Your task to perform on an android device: toggle pop-ups in chrome Image 0: 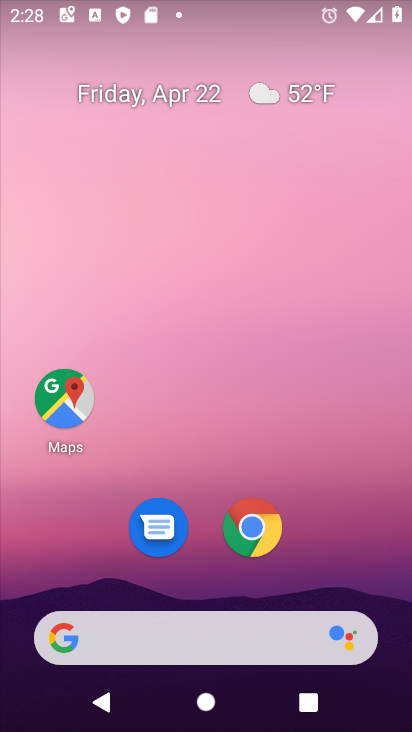
Step 0: click (259, 536)
Your task to perform on an android device: toggle pop-ups in chrome Image 1: 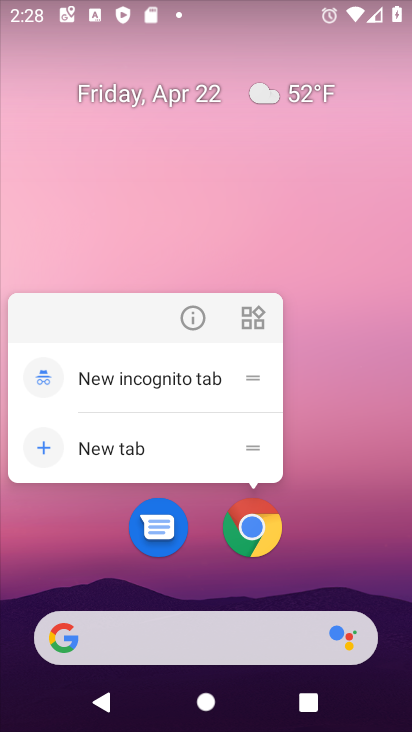
Step 1: click (262, 540)
Your task to perform on an android device: toggle pop-ups in chrome Image 2: 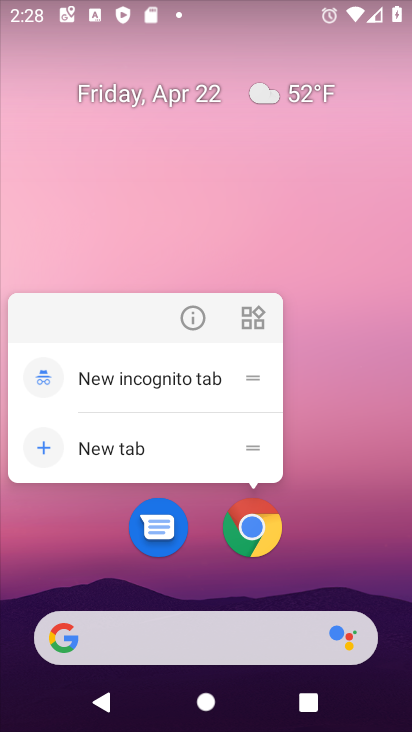
Step 2: click (262, 540)
Your task to perform on an android device: toggle pop-ups in chrome Image 3: 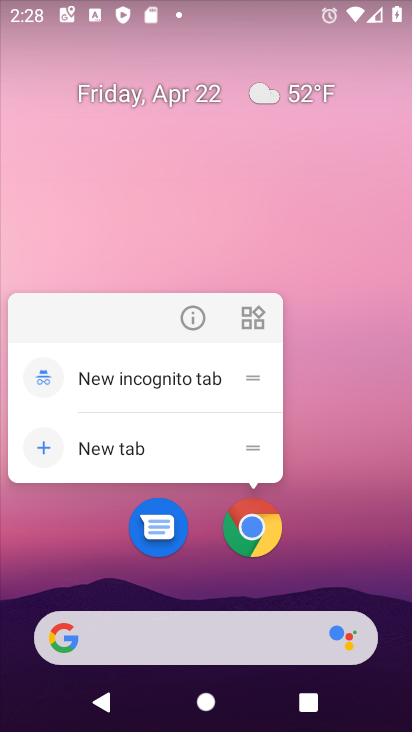
Step 3: click (262, 540)
Your task to perform on an android device: toggle pop-ups in chrome Image 4: 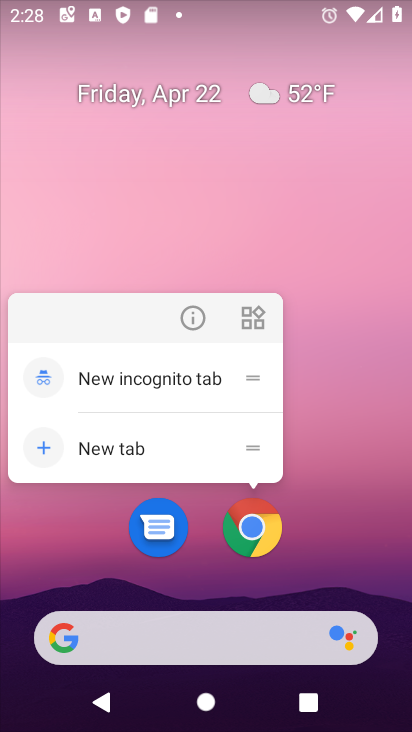
Step 4: click (266, 541)
Your task to perform on an android device: toggle pop-ups in chrome Image 5: 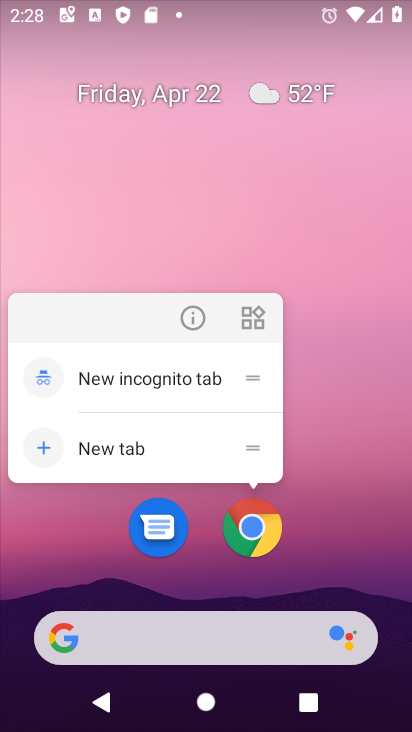
Step 5: click (249, 521)
Your task to perform on an android device: toggle pop-ups in chrome Image 6: 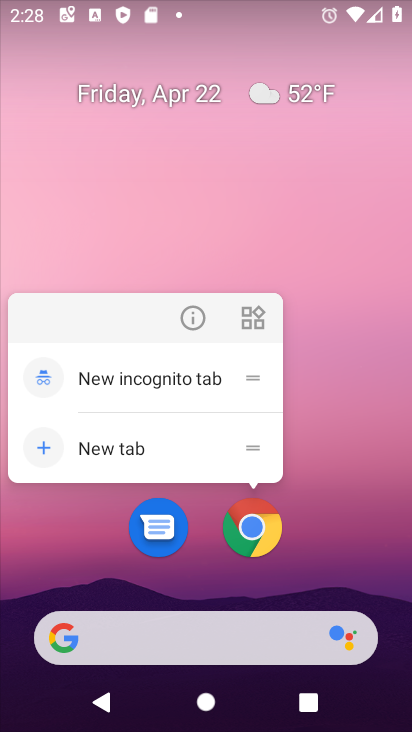
Step 6: click (256, 508)
Your task to perform on an android device: toggle pop-ups in chrome Image 7: 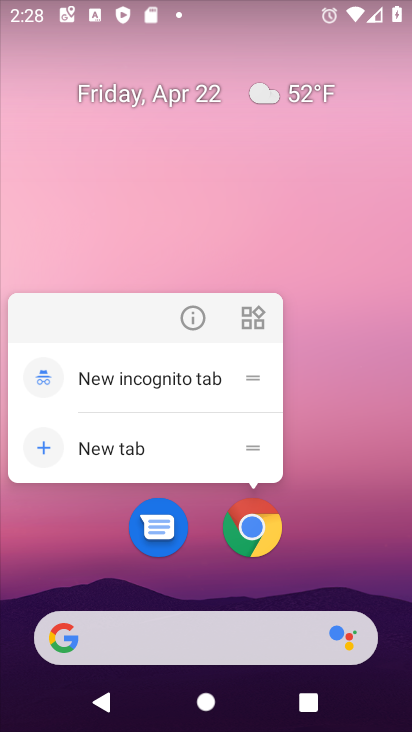
Step 7: click (256, 507)
Your task to perform on an android device: toggle pop-ups in chrome Image 8: 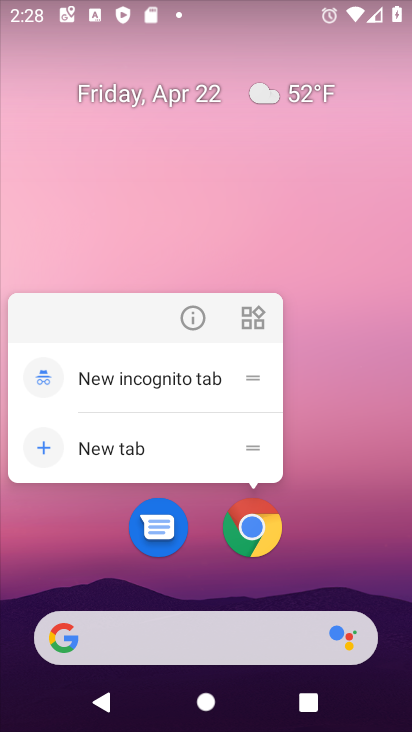
Step 8: click (256, 507)
Your task to perform on an android device: toggle pop-ups in chrome Image 9: 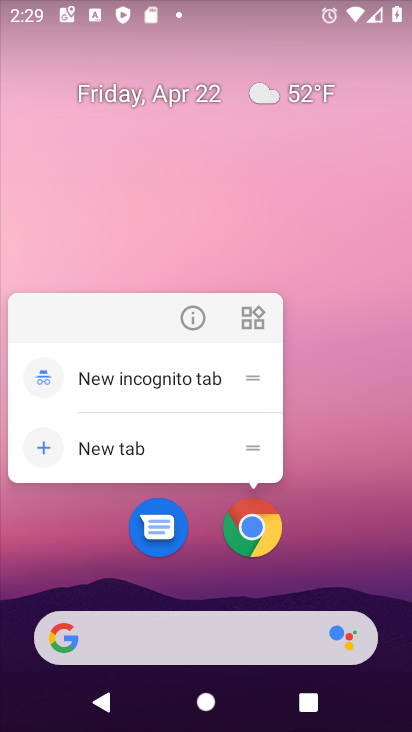
Step 9: click (256, 507)
Your task to perform on an android device: toggle pop-ups in chrome Image 10: 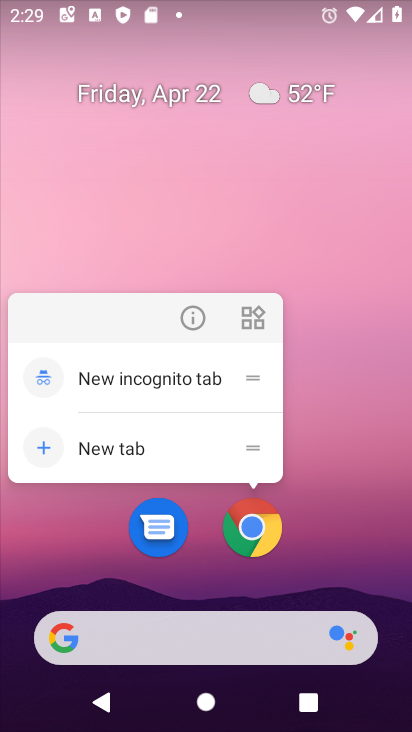
Step 10: click (256, 504)
Your task to perform on an android device: toggle pop-ups in chrome Image 11: 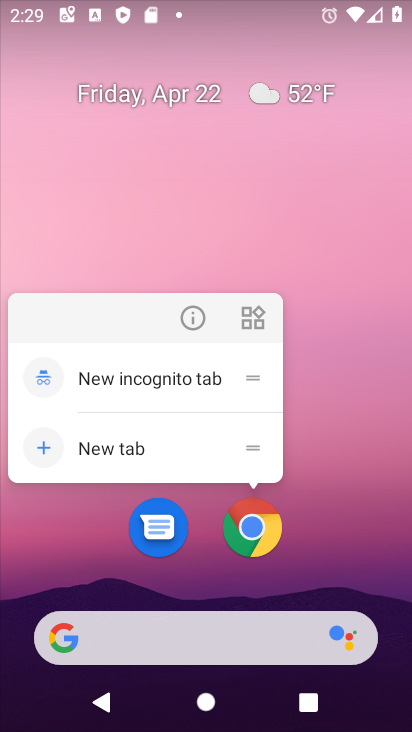
Step 11: click (256, 504)
Your task to perform on an android device: toggle pop-ups in chrome Image 12: 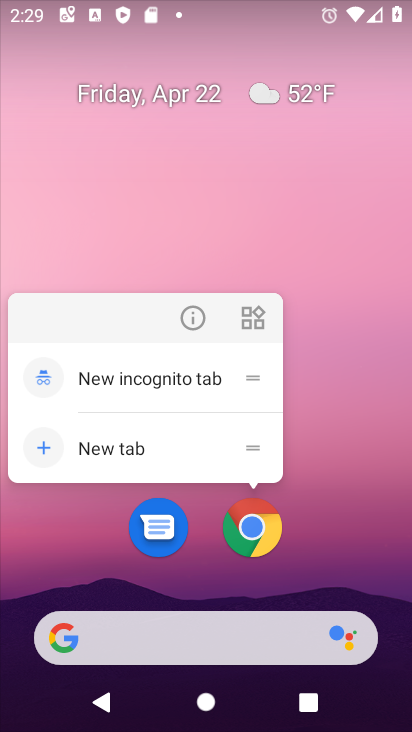
Step 12: click (256, 504)
Your task to perform on an android device: toggle pop-ups in chrome Image 13: 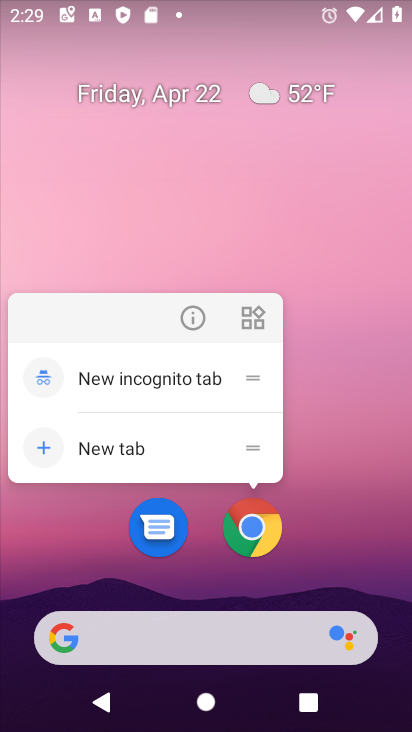
Step 13: click (256, 503)
Your task to perform on an android device: toggle pop-ups in chrome Image 14: 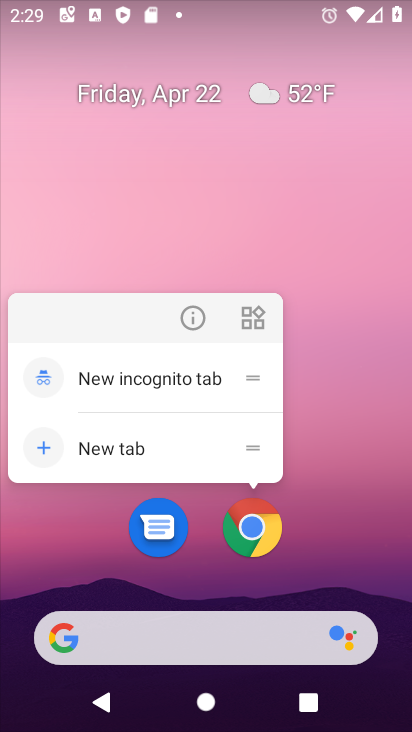
Step 14: click (256, 503)
Your task to perform on an android device: toggle pop-ups in chrome Image 15: 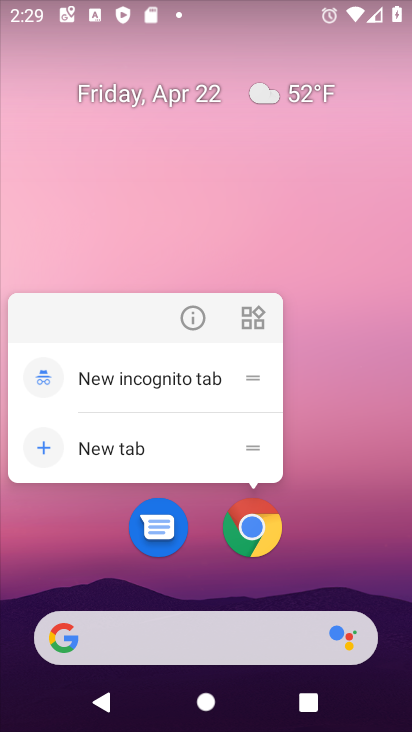
Step 15: click (256, 502)
Your task to perform on an android device: toggle pop-ups in chrome Image 16: 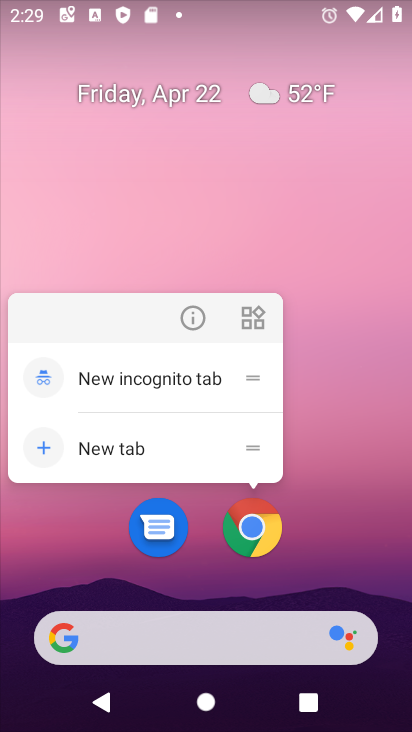
Step 16: click (256, 501)
Your task to perform on an android device: toggle pop-ups in chrome Image 17: 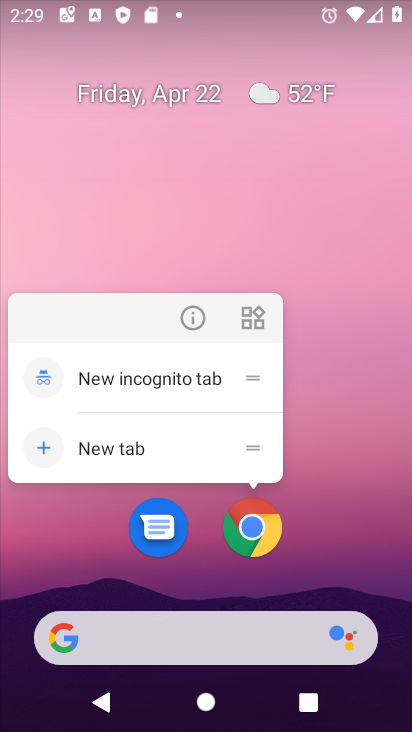
Step 17: click (256, 501)
Your task to perform on an android device: toggle pop-ups in chrome Image 18: 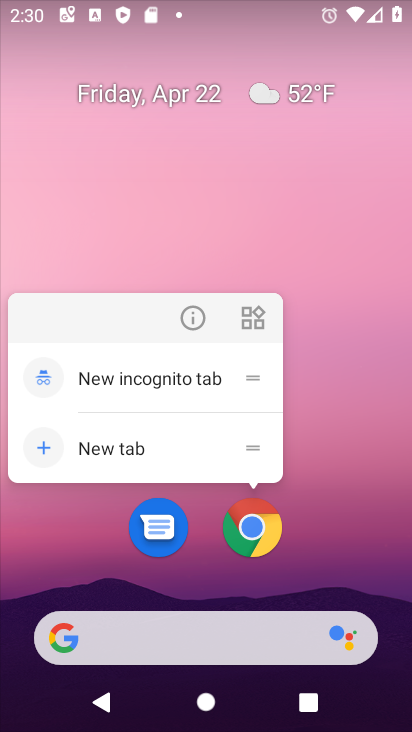
Step 18: click (256, 499)
Your task to perform on an android device: toggle pop-ups in chrome Image 19: 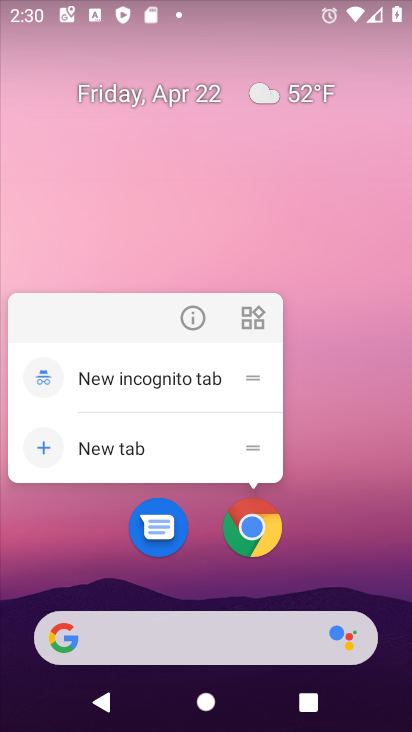
Step 19: click (261, 506)
Your task to perform on an android device: toggle pop-ups in chrome Image 20: 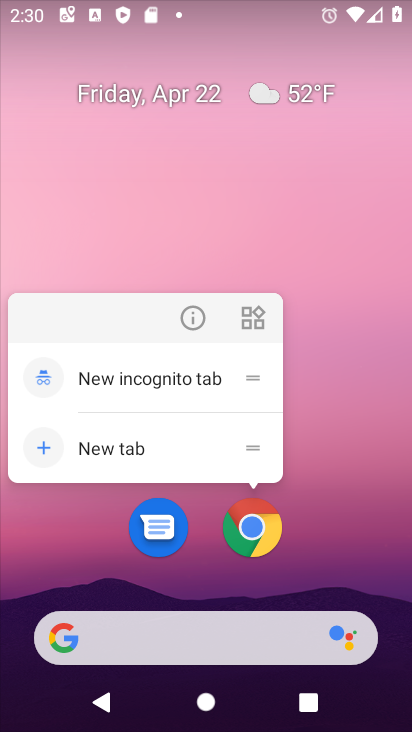
Step 20: click (246, 533)
Your task to perform on an android device: toggle pop-ups in chrome Image 21: 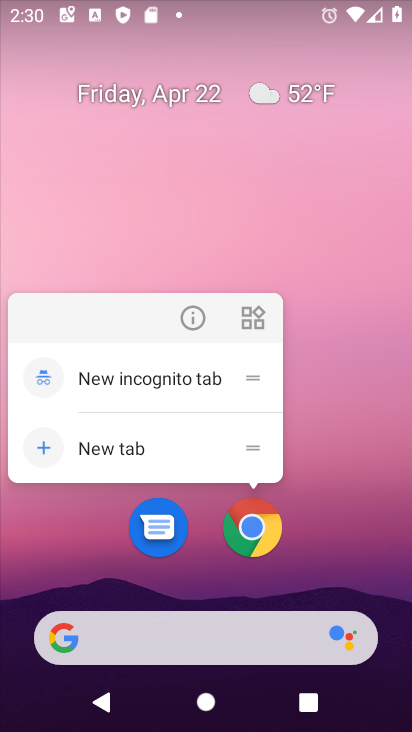
Step 21: click (246, 533)
Your task to perform on an android device: toggle pop-ups in chrome Image 22: 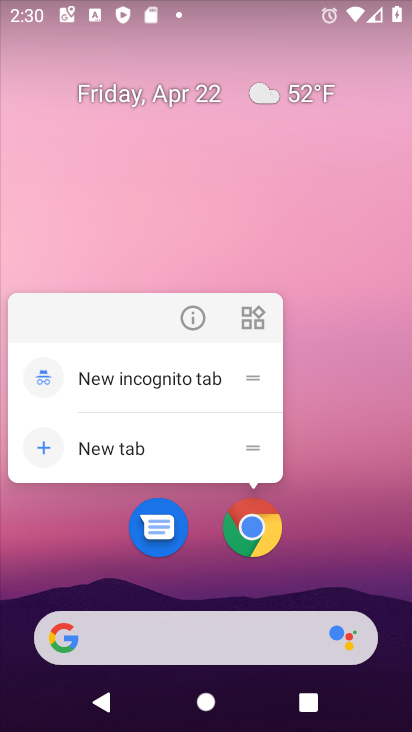
Step 22: click (246, 533)
Your task to perform on an android device: toggle pop-ups in chrome Image 23: 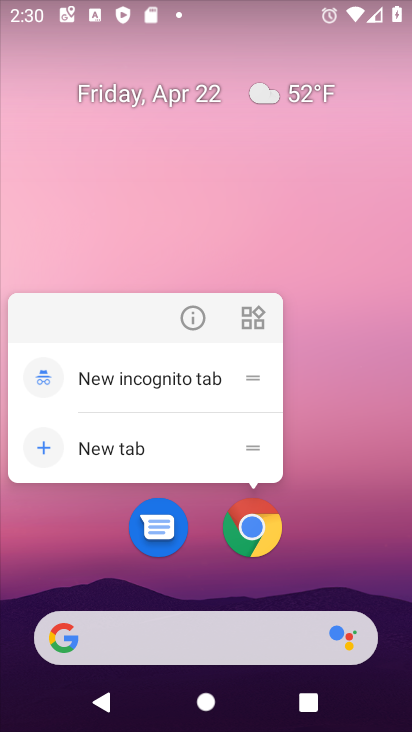
Step 23: click (246, 533)
Your task to perform on an android device: toggle pop-ups in chrome Image 24: 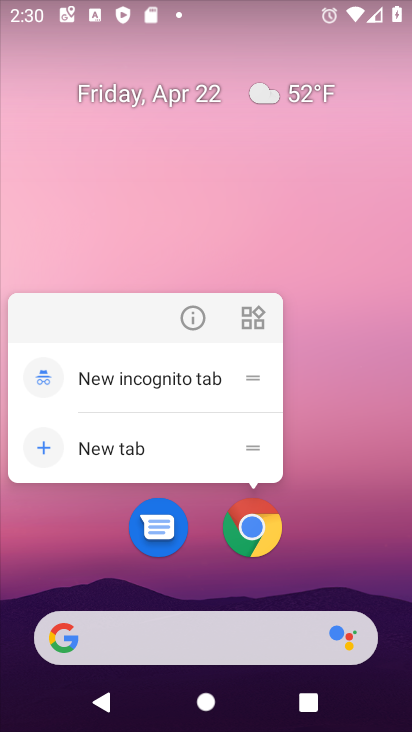
Step 24: click (246, 533)
Your task to perform on an android device: toggle pop-ups in chrome Image 25: 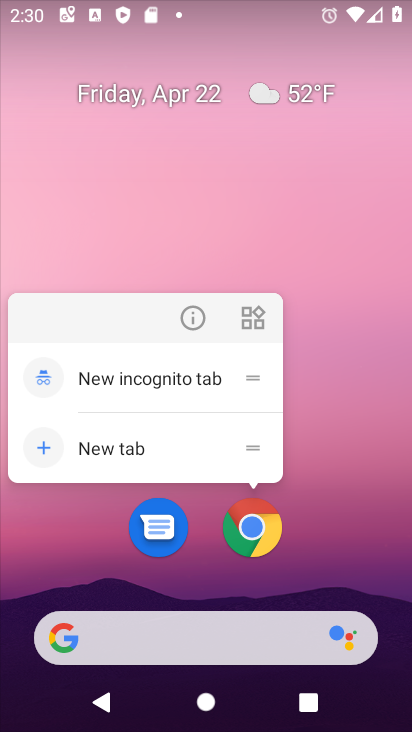
Step 25: task complete